Your task to perform on an android device: Open my contact list Image 0: 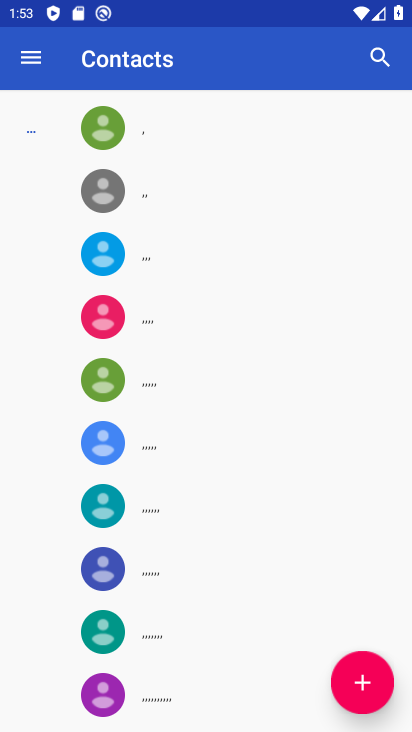
Step 0: task complete